Your task to perform on an android device: See recent photos Image 0: 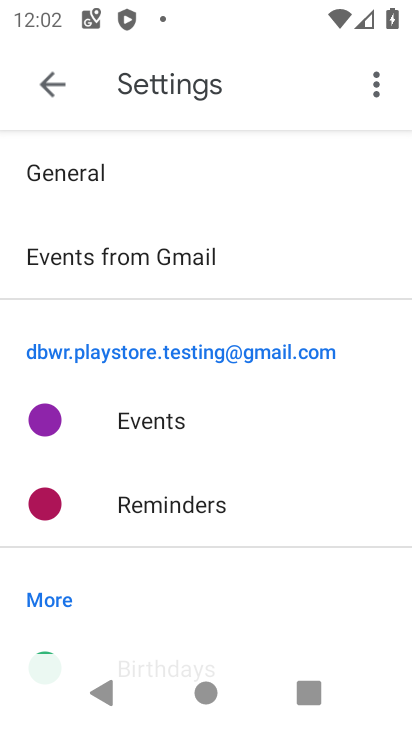
Step 0: press home button
Your task to perform on an android device: See recent photos Image 1: 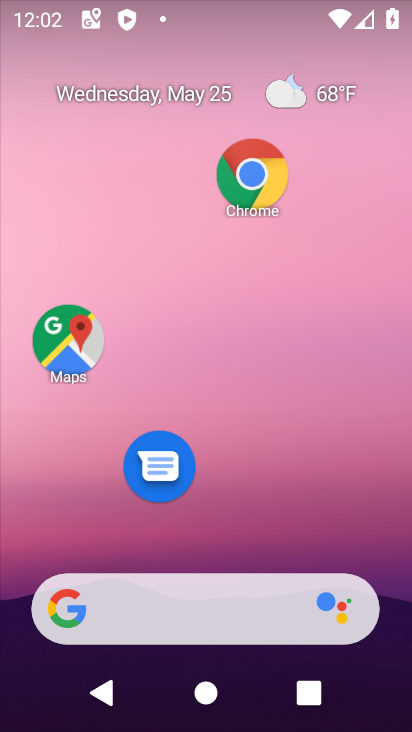
Step 1: click (248, 224)
Your task to perform on an android device: See recent photos Image 2: 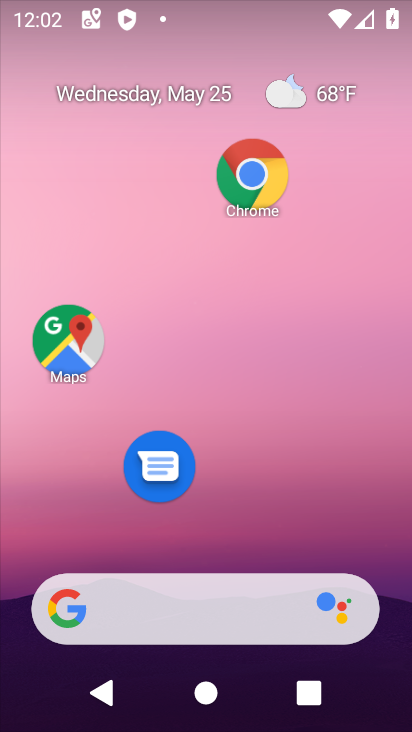
Step 2: drag from (243, 535) to (180, 24)
Your task to perform on an android device: See recent photos Image 3: 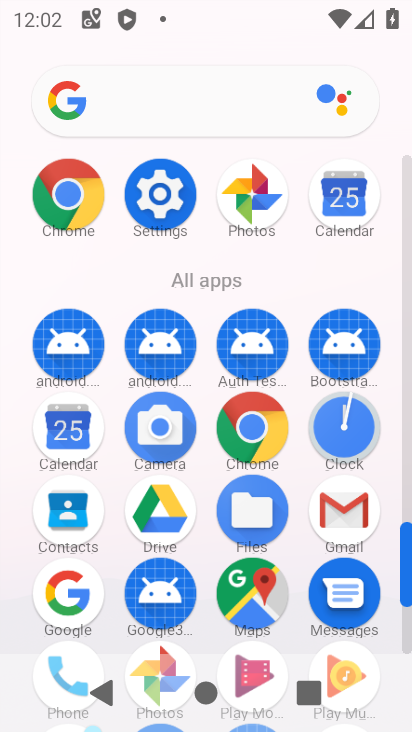
Step 3: click (241, 222)
Your task to perform on an android device: See recent photos Image 4: 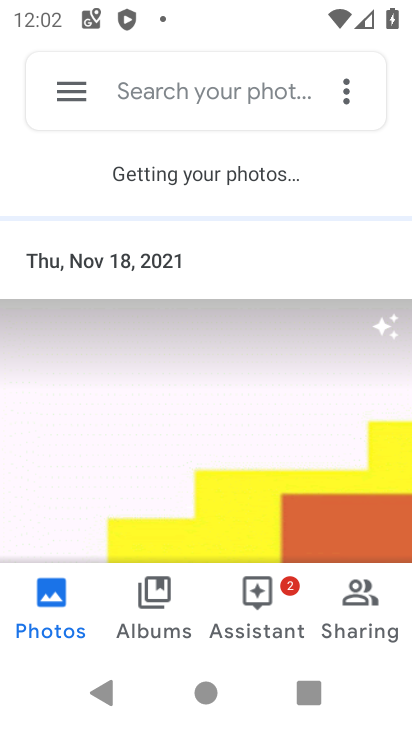
Step 4: click (75, 595)
Your task to perform on an android device: See recent photos Image 5: 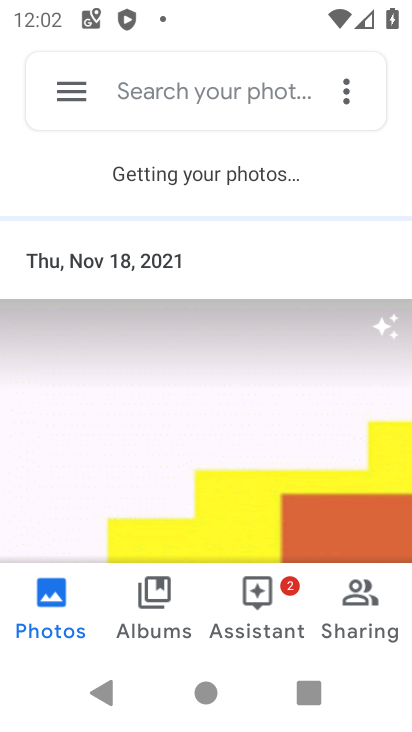
Step 5: task complete